Your task to perform on an android device: open app "Spotify" (install if not already installed), go to login, and select forgot password Image 0: 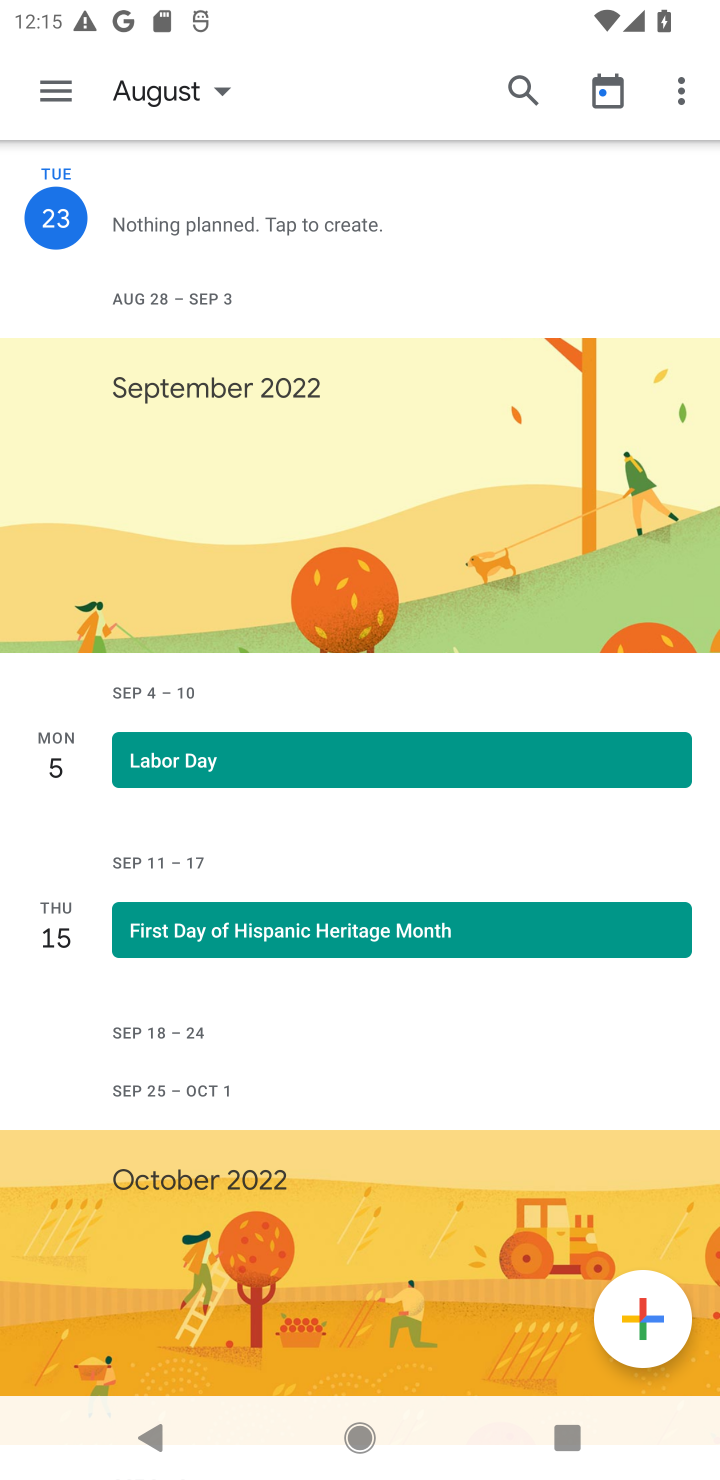
Step 0: press home button
Your task to perform on an android device: open app "Spotify" (install if not already installed), go to login, and select forgot password Image 1: 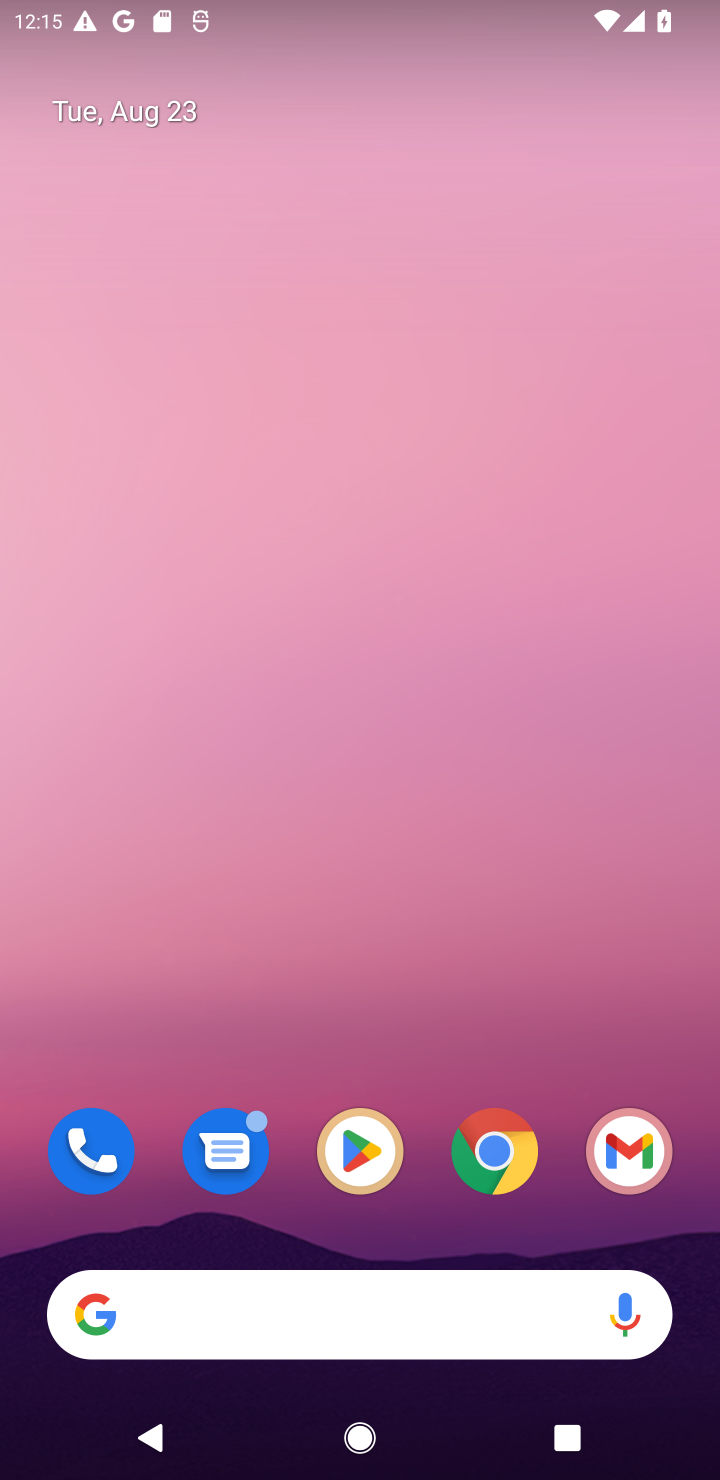
Step 1: click (352, 1145)
Your task to perform on an android device: open app "Spotify" (install if not already installed), go to login, and select forgot password Image 2: 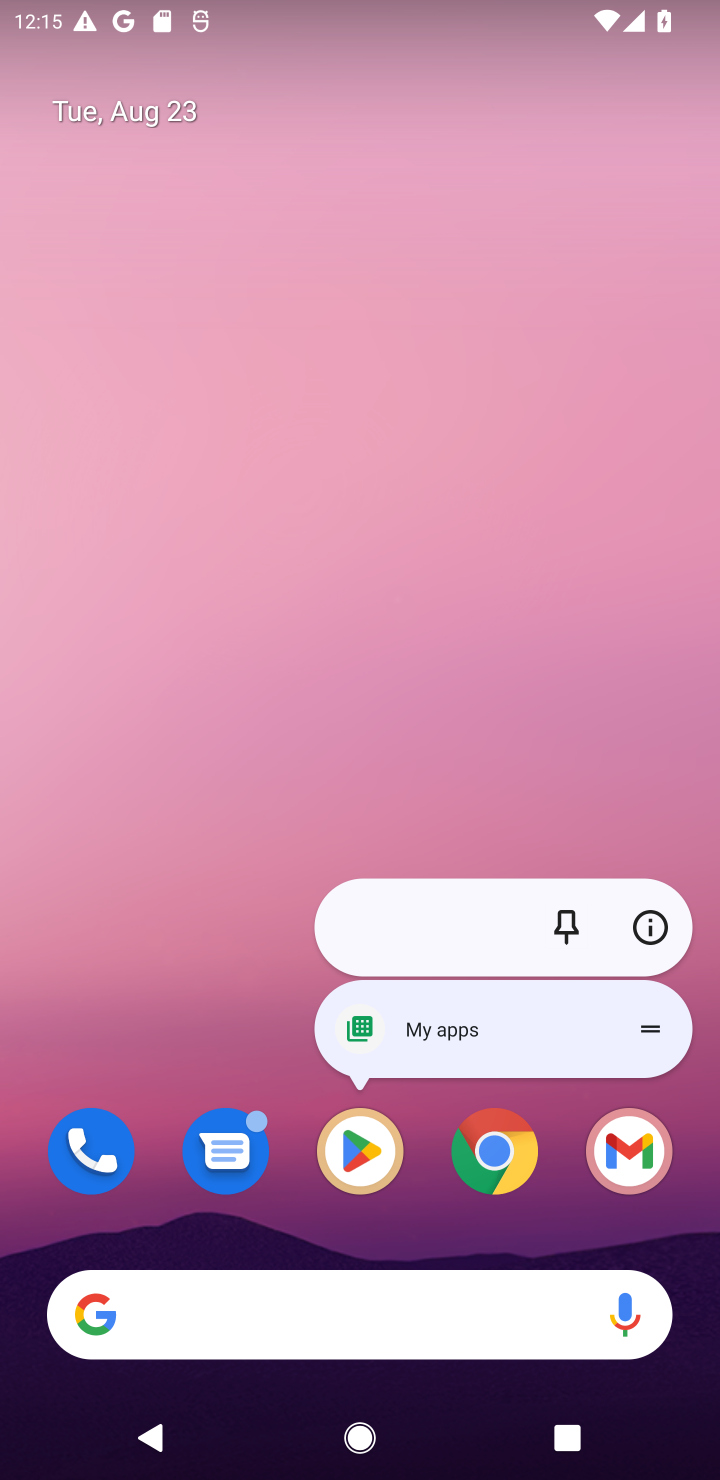
Step 2: click (369, 1150)
Your task to perform on an android device: open app "Spotify" (install if not already installed), go to login, and select forgot password Image 3: 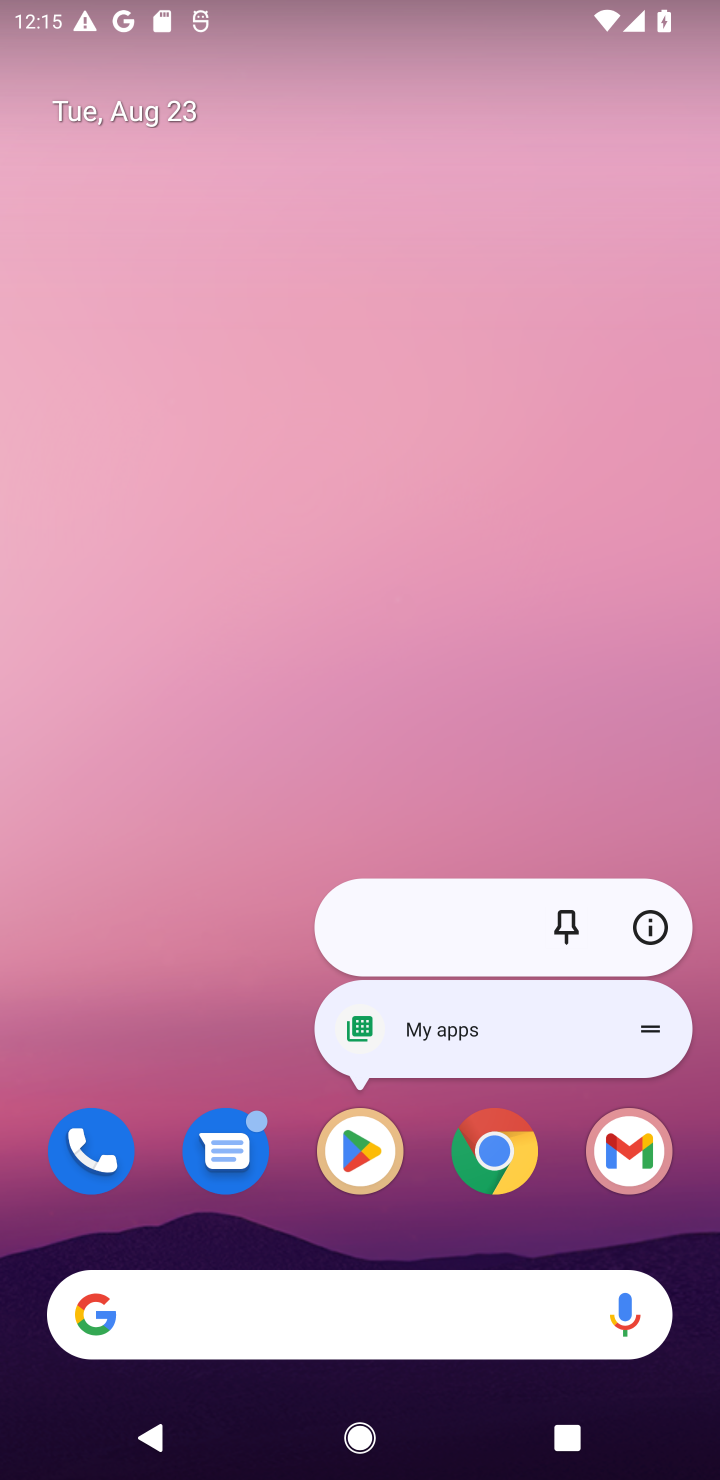
Step 3: click (368, 1157)
Your task to perform on an android device: open app "Spotify" (install if not already installed), go to login, and select forgot password Image 4: 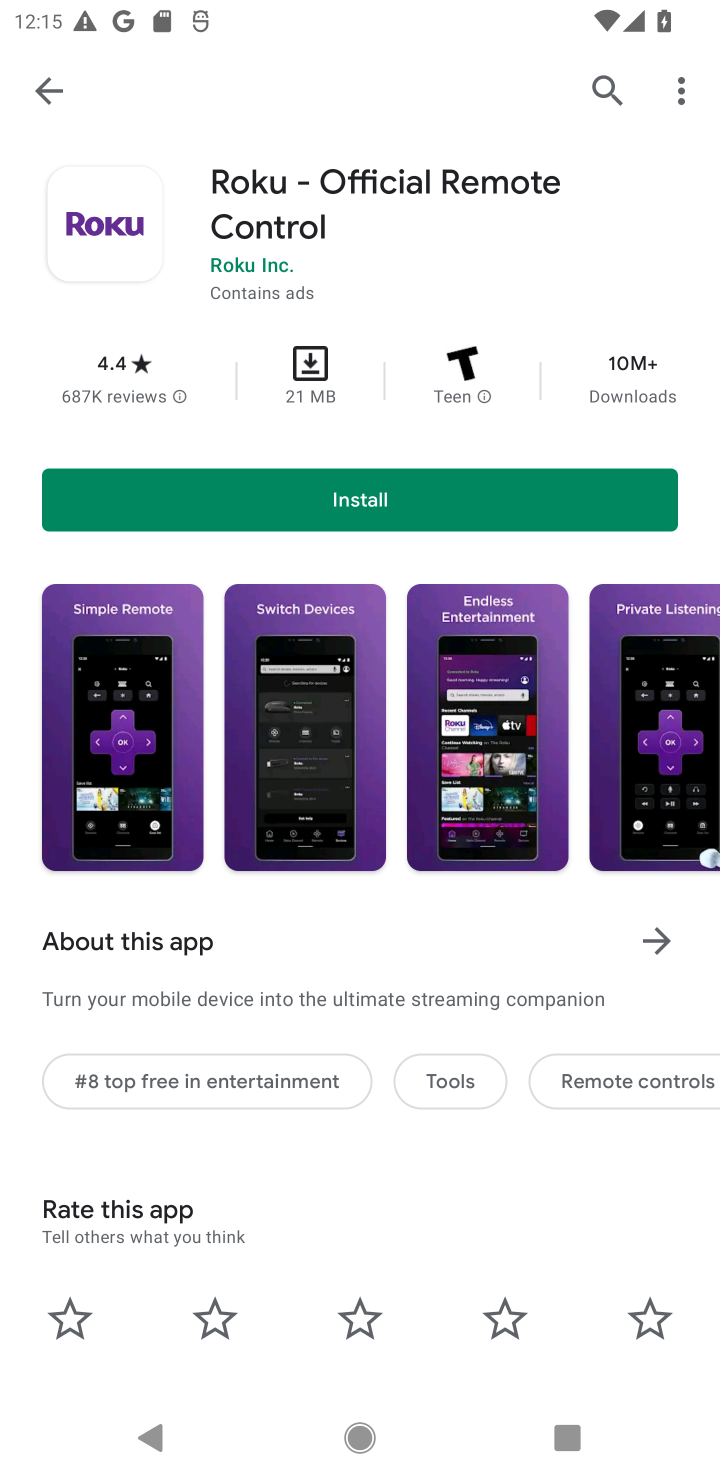
Step 4: click (604, 86)
Your task to perform on an android device: open app "Spotify" (install if not already installed), go to login, and select forgot password Image 5: 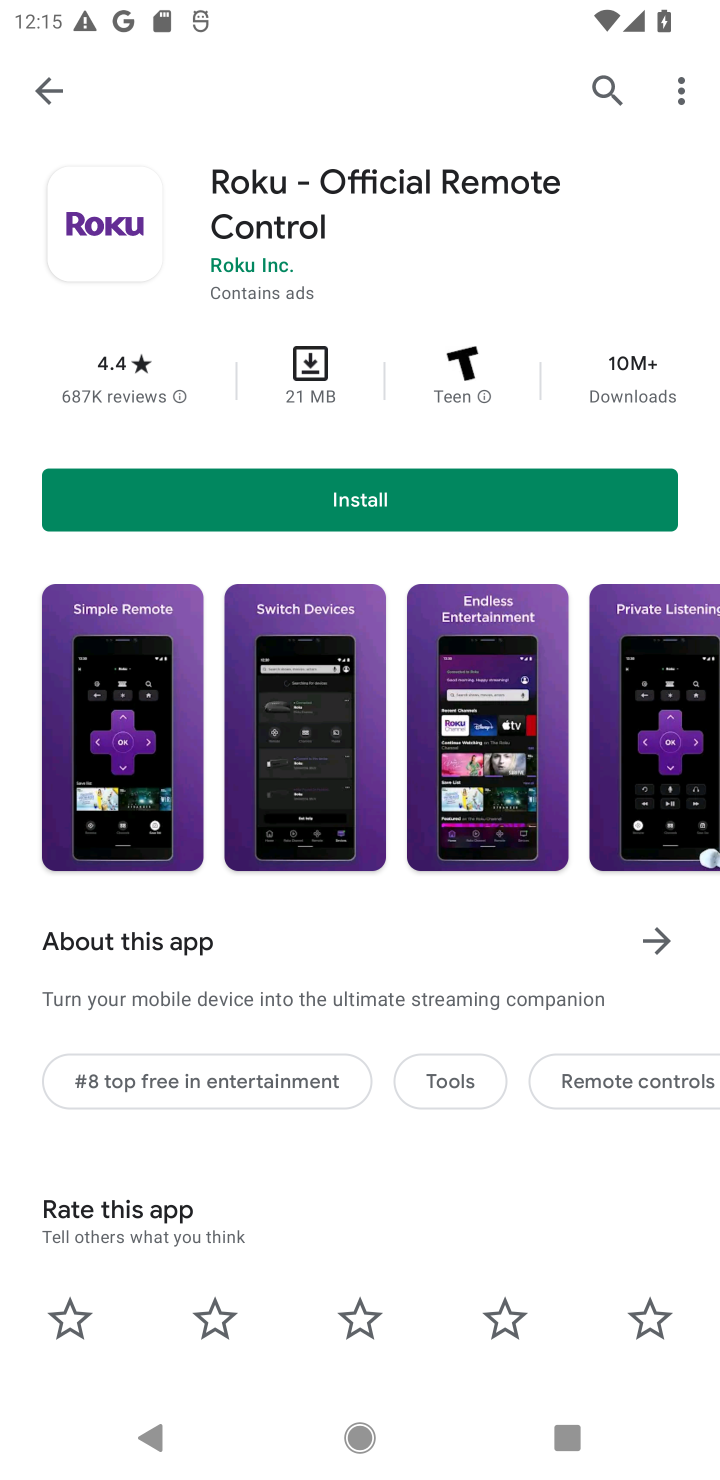
Step 5: click (606, 86)
Your task to perform on an android device: open app "Spotify" (install if not already installed), go to login, and select forgot password Image 6: 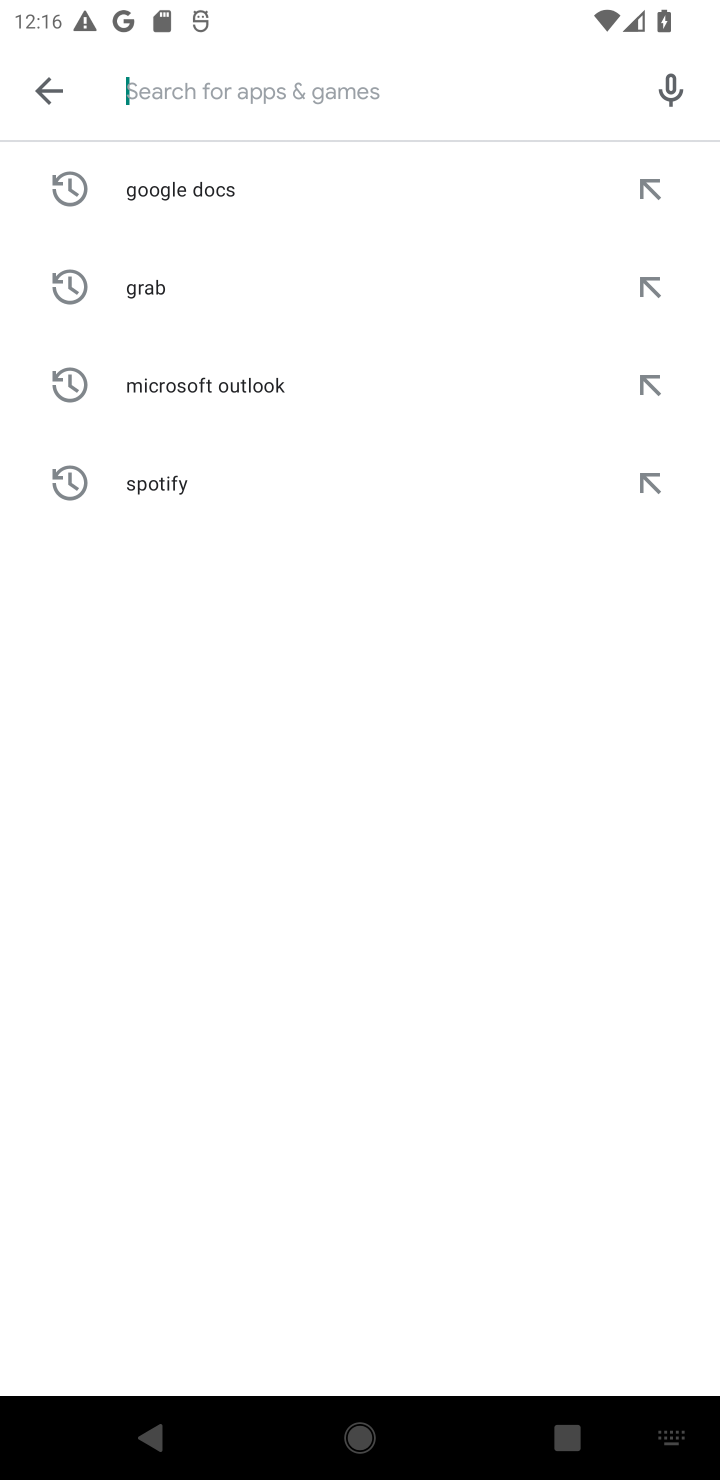
Step 6: type "Spotify"
Your task to perform on an android device: open app "Spotify" (install if not already installed), go to login, and select forgot password Image 7: 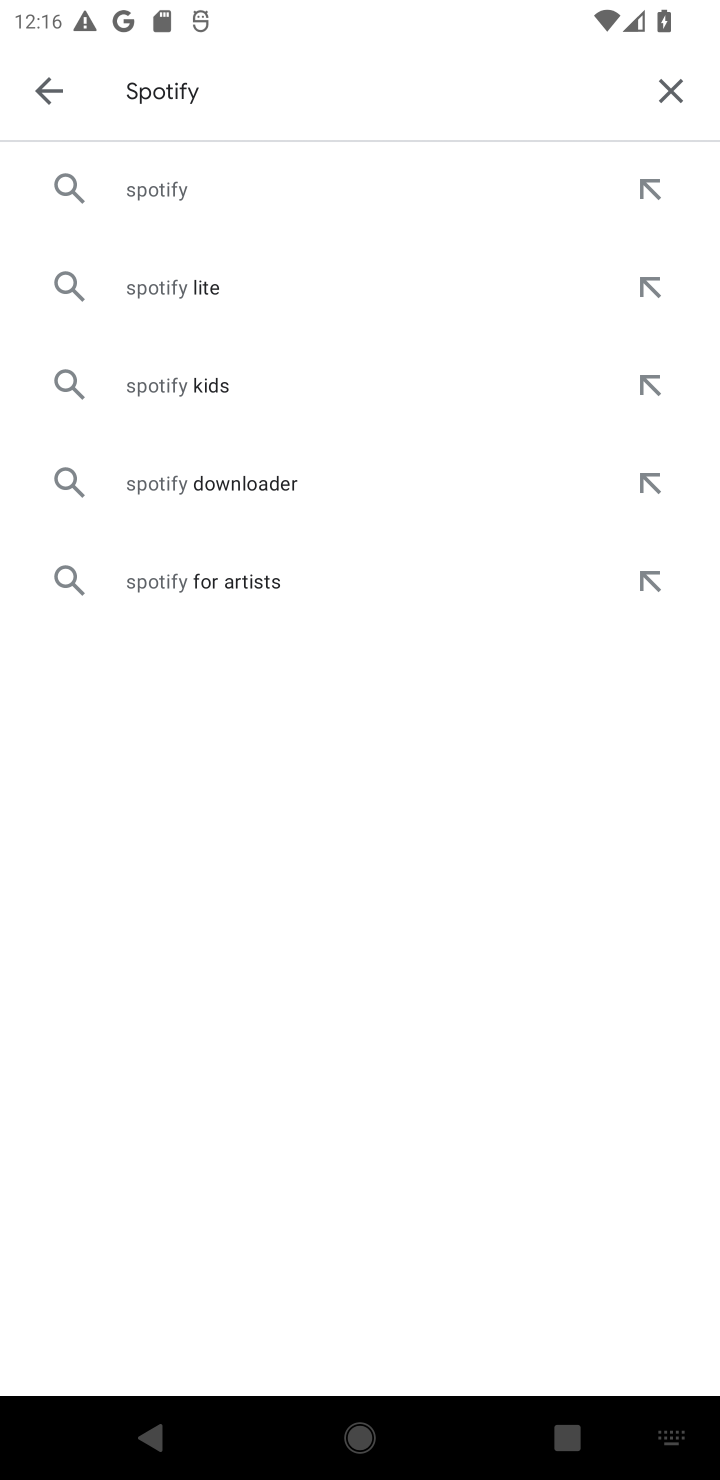
Step 7: click (249, 180)
Your task to perform on an android device: open app "Spotify" (install if not already installed), go to login, and select forgot password Image 8: 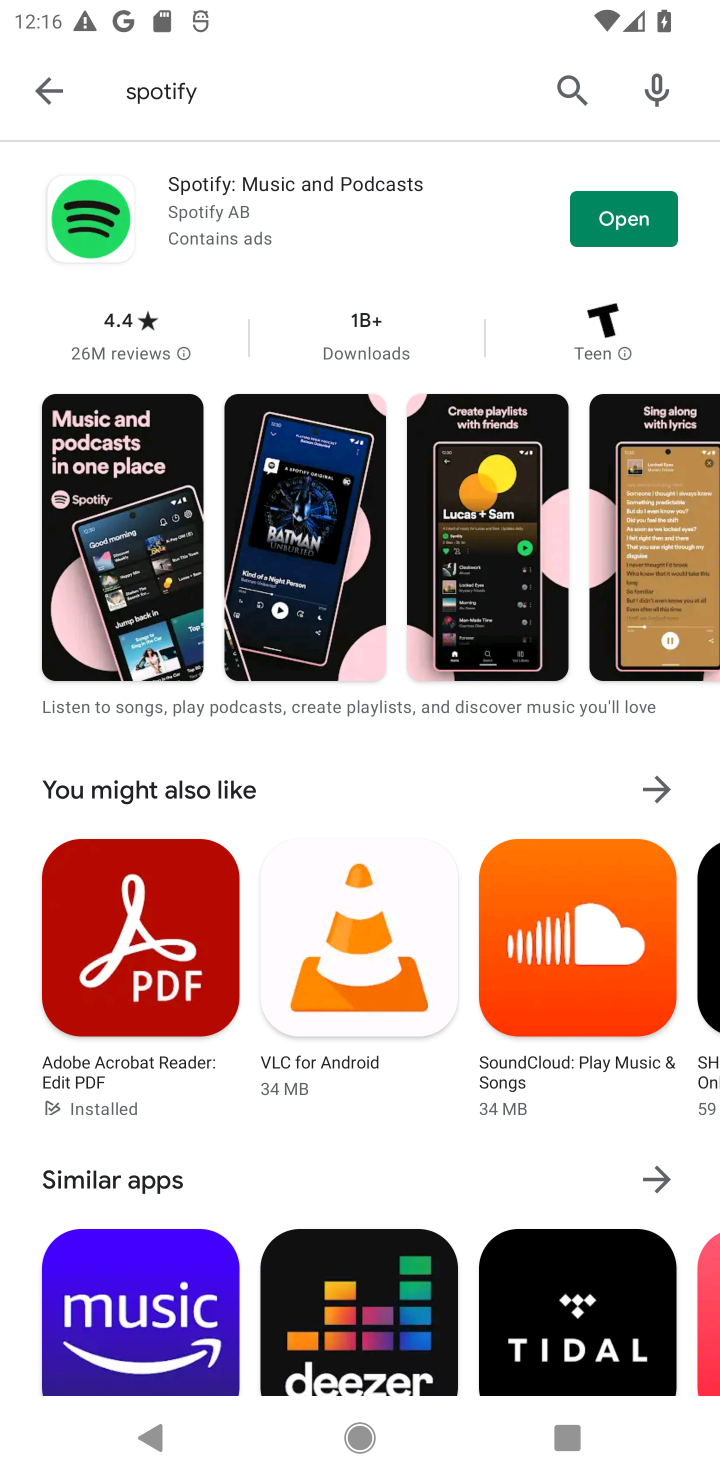
Step 8: click (595, 217)
Your task to perform on an android device: open app "Spotify" (install if not already installed), go to login, and select forgot password Image 9: 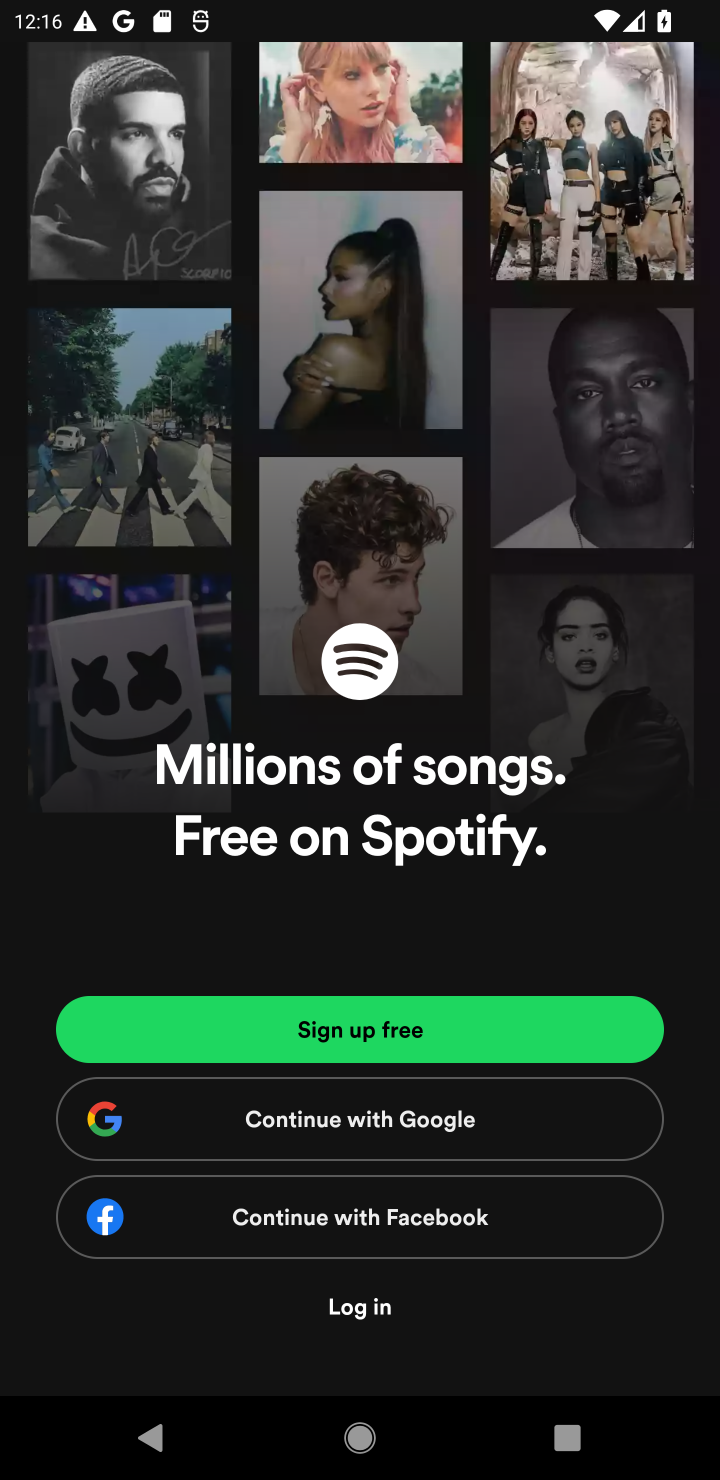
Step 9: task complete